Your task to perform on an android device: toggle notification dots Image 0: 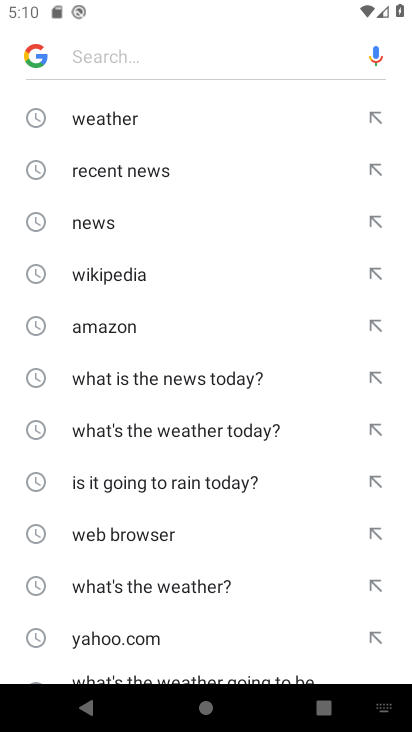
Step 0: press home button
Your task to perform on an android device: toggle notification dots Image 1: 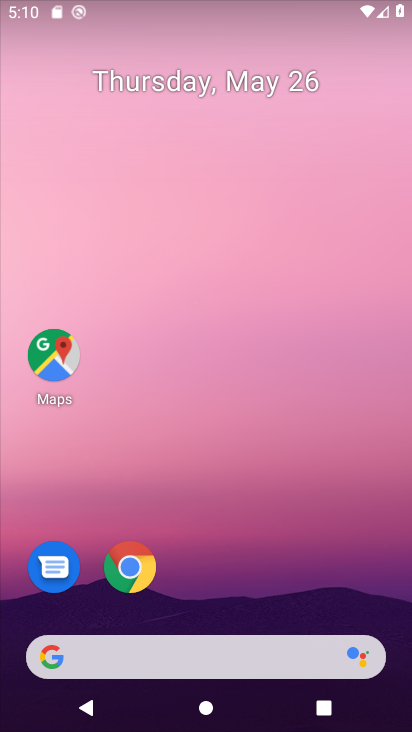
Step 1: drag from (301, 547) to (297, 115)
Your task to perform on an android device: toggle notification dots Image 2: 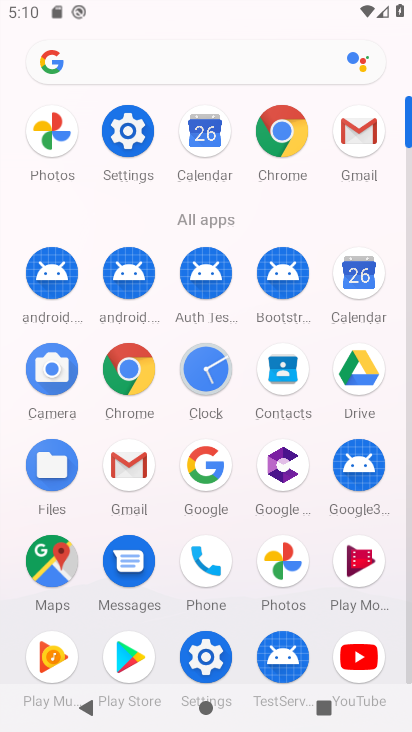
Step 2: click (124, 146)
Your task to perform on an android device: toggle notification dots Image 3: 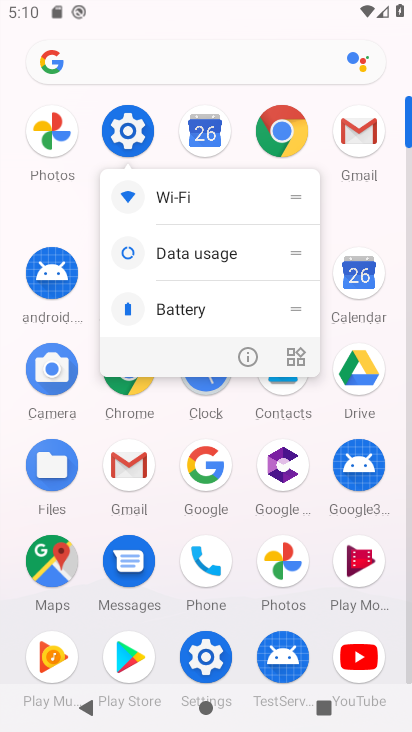
Step 3: click (125, 133)
Your task to perform on an android device: toggle notification dots Image 4: 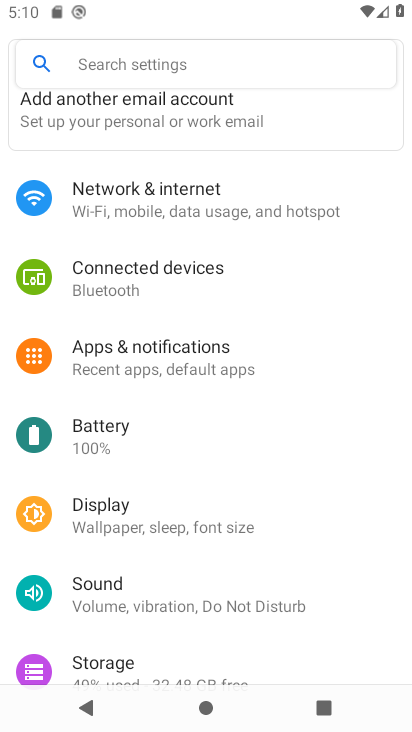
Step 4: click (164, 378)
Your task to perform on an android device: toggle notification dots Image 5: 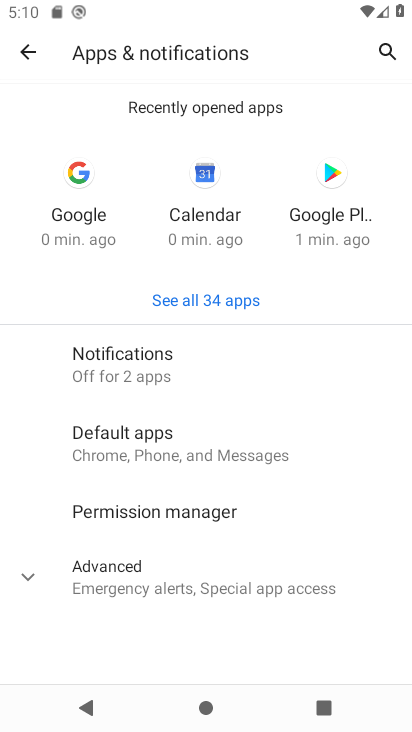
Step 5: click (225, 375)
Your task to perform on an android device: toggle notification dots Image 6: 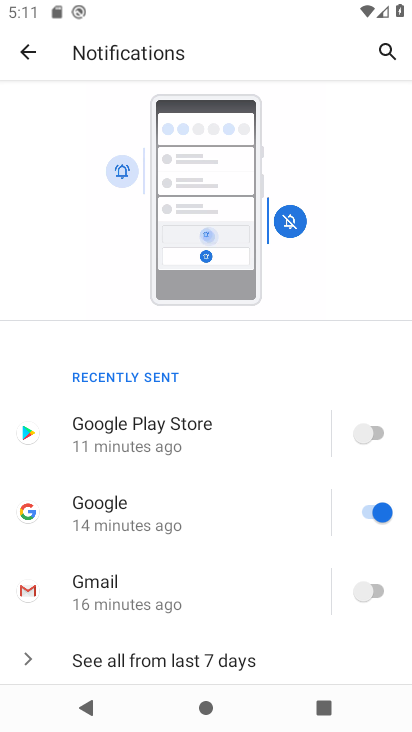
Step 6: drag from (254, 389) to (260, 83)
Your task to perform on an android device: toggle notification dots Image 7: 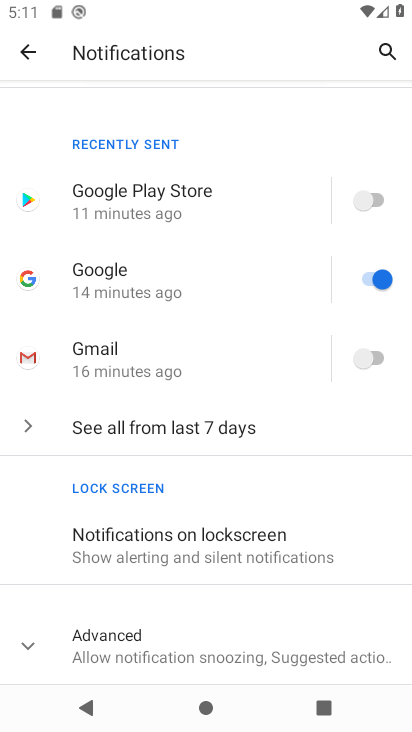
Step 7: click (23, 646)
Your task to perform on an android device: toggle notification dots Image 8: 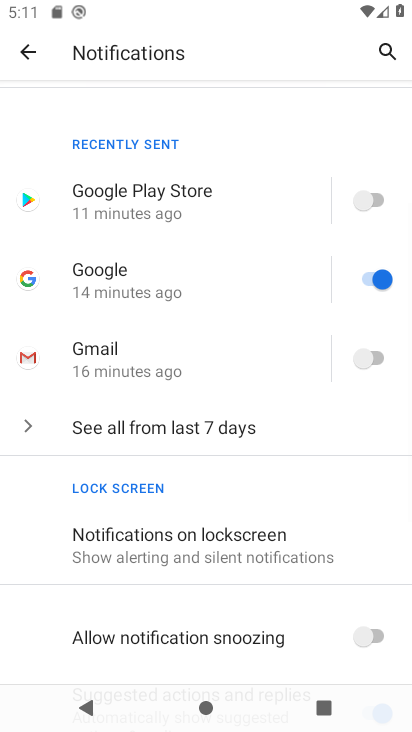
Step 8: drag from (351, 521) to (345, 293)
Your task to perform on an android device: toggle notification dots Image 9: 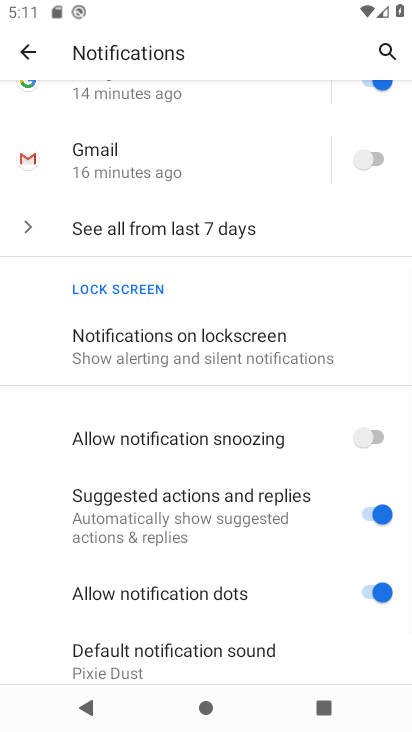
Step 9: click (369, 595)
Your task to perform on an android device: toggle notification dots Image 10: 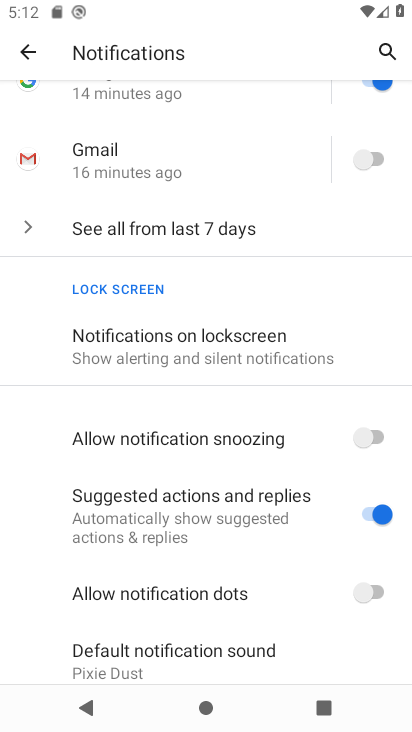
Step 10: task complete